Your task to perform on an android device: delete a single message in the gmail app Image 0: 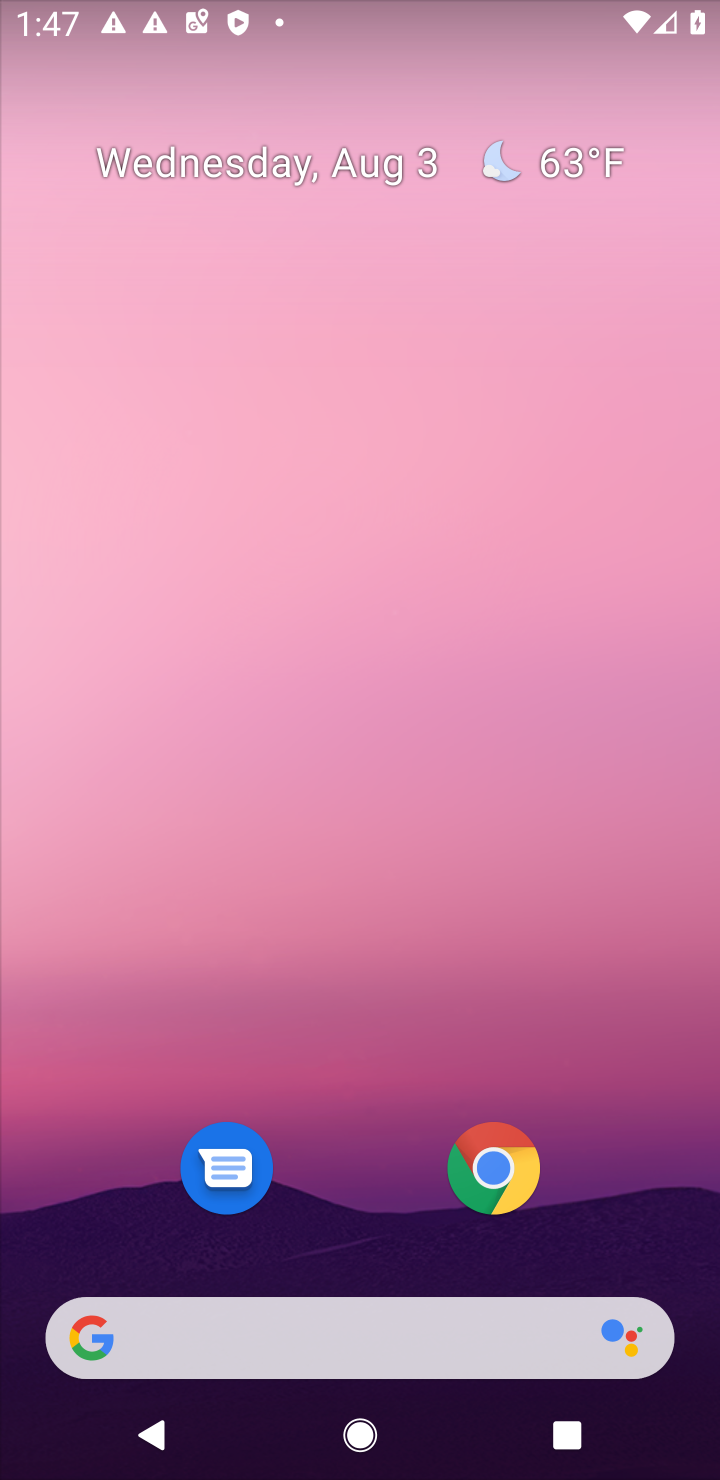
Step 0: drag from (657, 1073) to (587, 91)
Your task to perform on an android device: delete a single message in the gmail app Image 1: 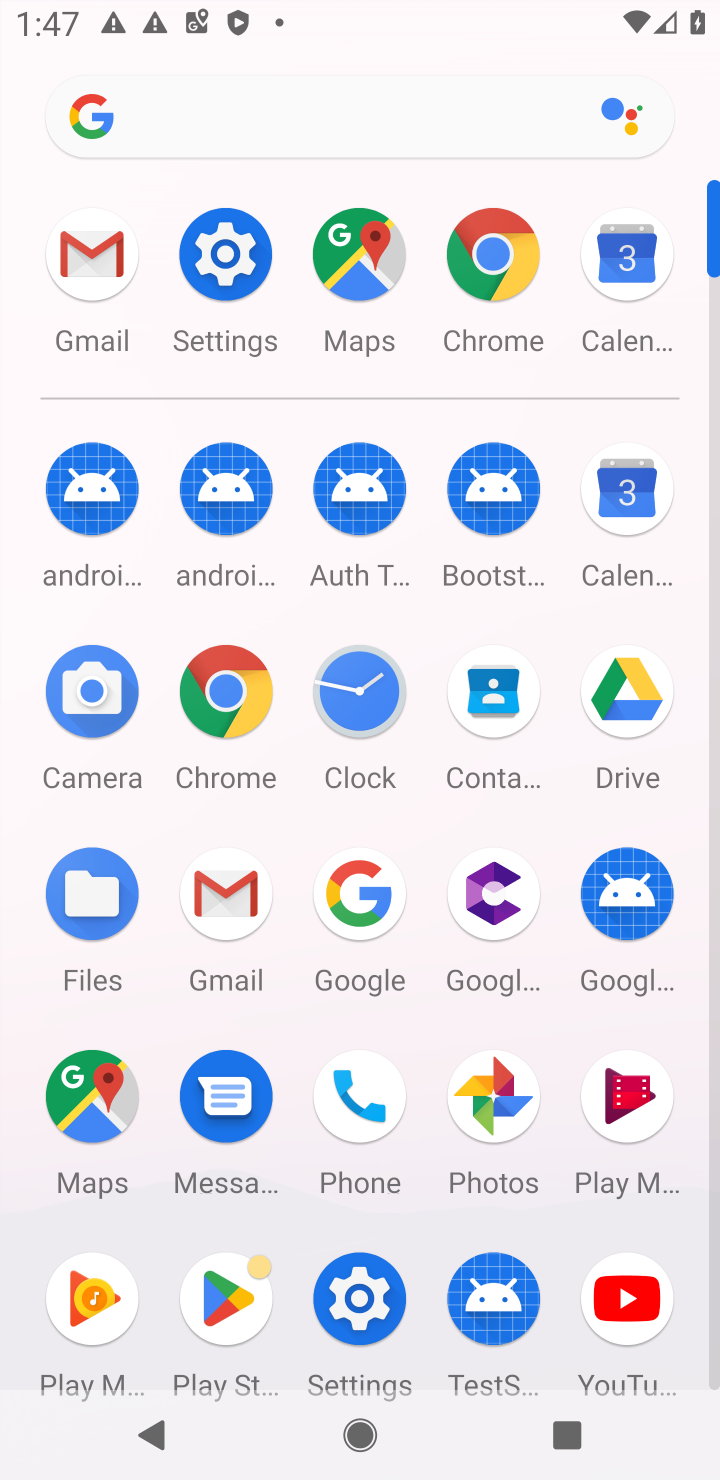
Step 1: click (219, 897)
Your task to perform on an android device: delete a single message in the gmail app Image 2: 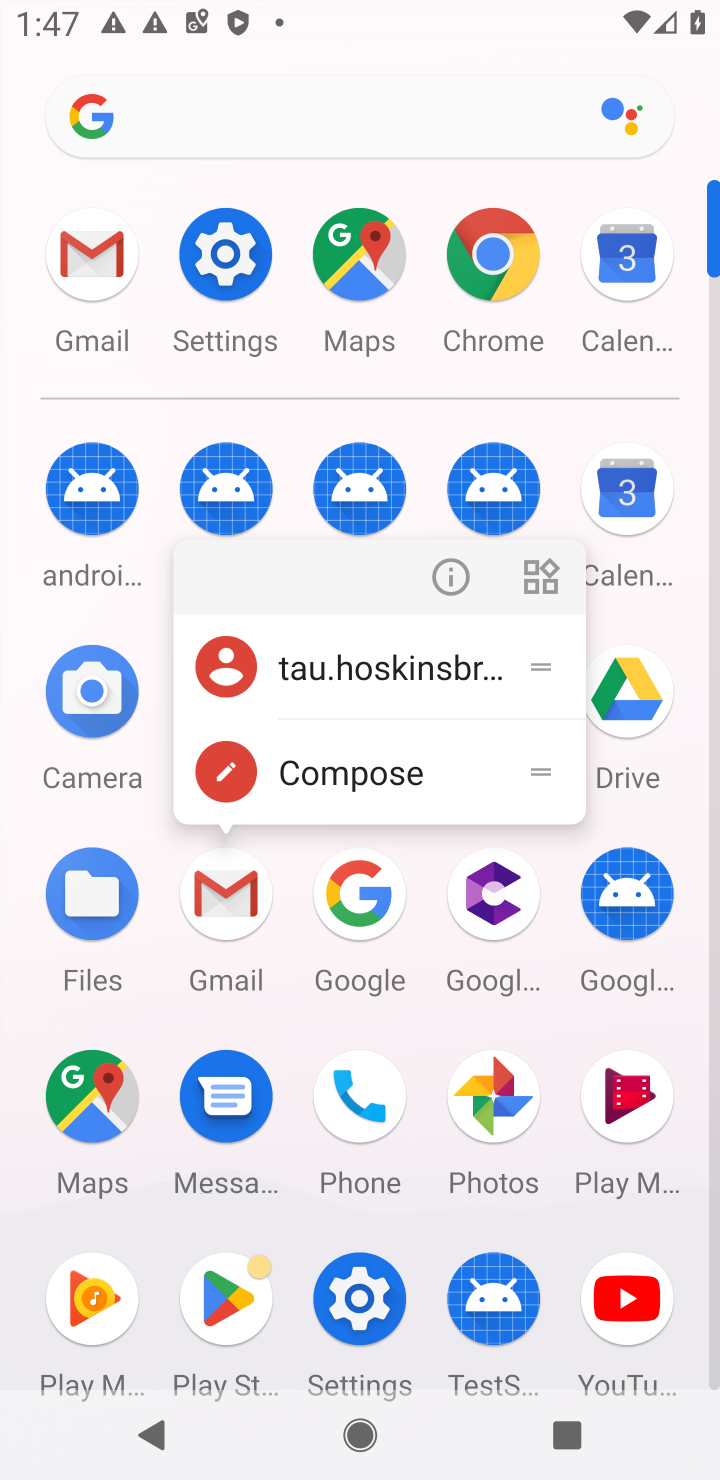
Step 2: click (223, 896)
Your task to perform on an android device: delete a single message in the gmail app Image 3: 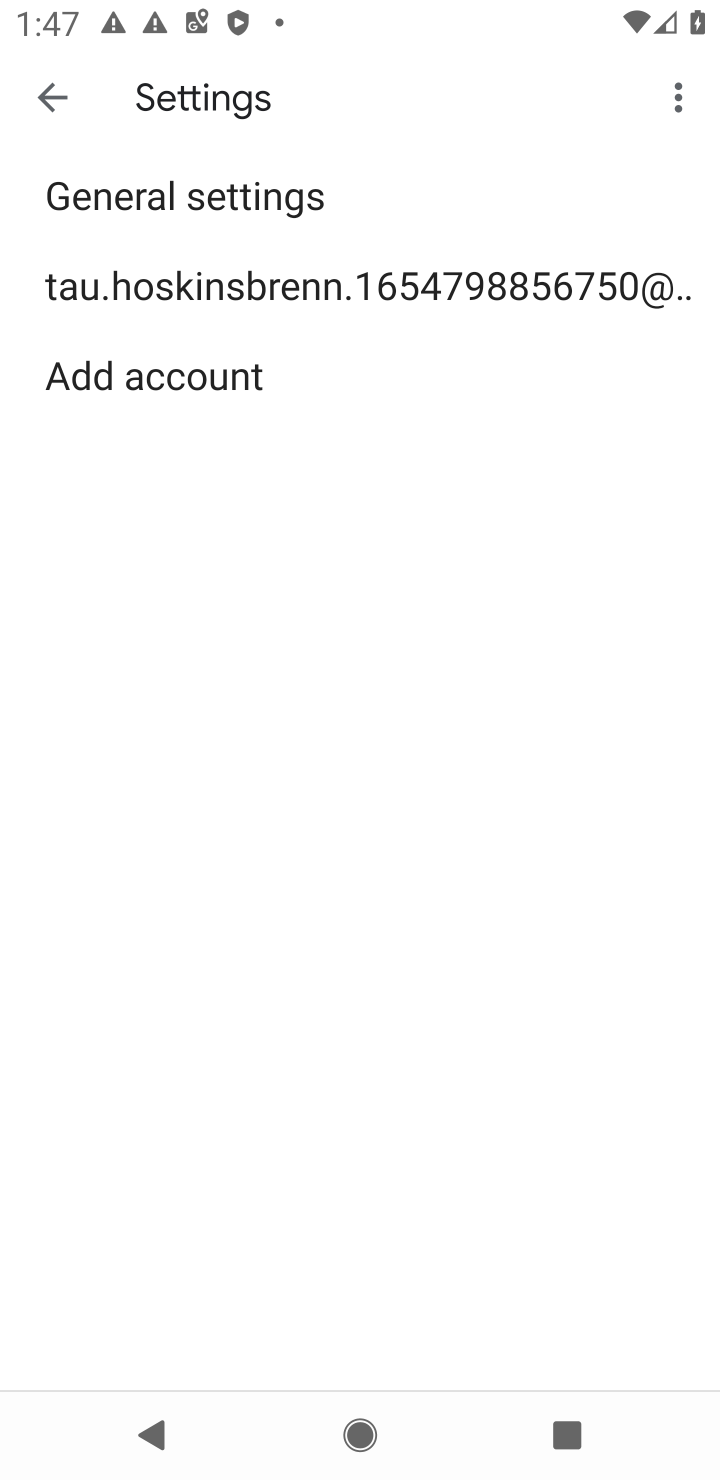
Step 3: press back button
Your task to perform on an android device: delete a single message in the gmail app Image 4: 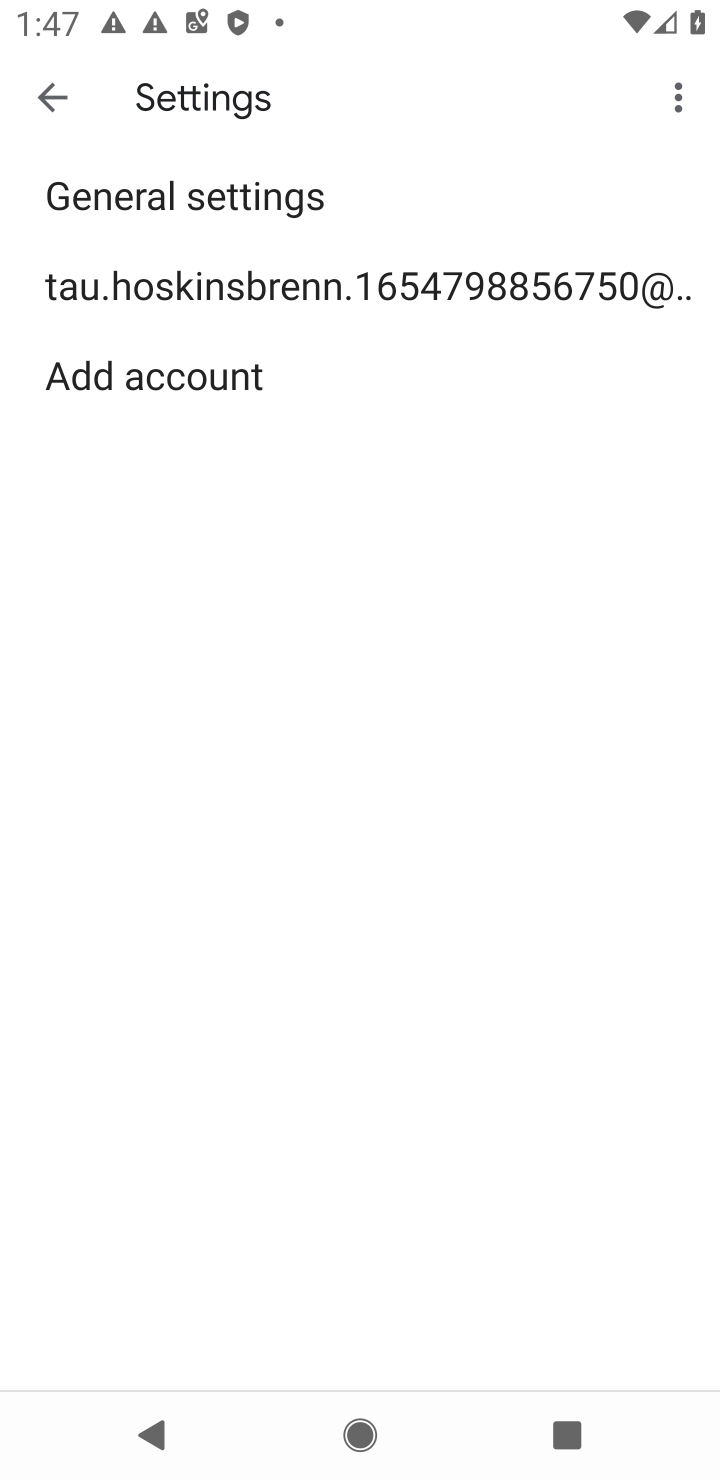
Step 4: press back button
Your task to perform on an android device: delete a single message in the gmail app Image 5: 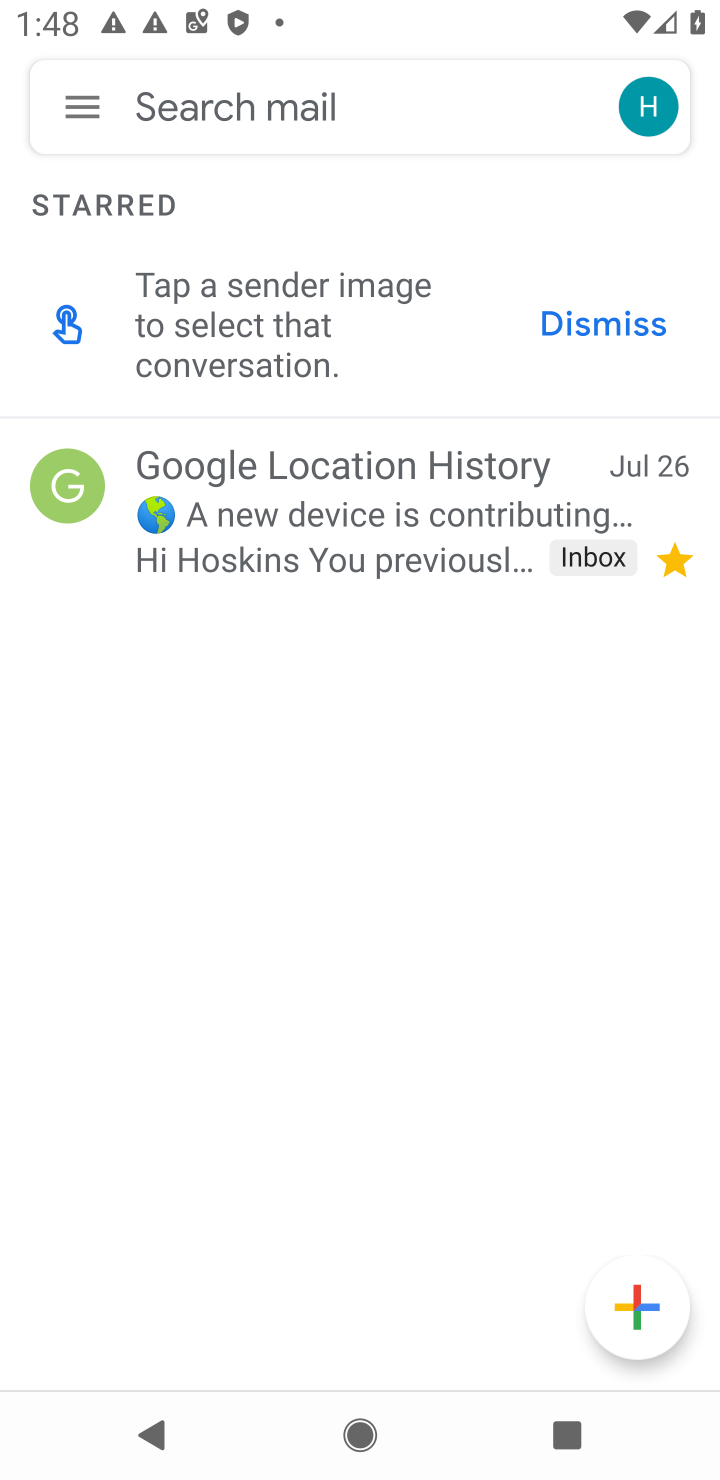
Step 5: click (414, 478)
Your task to perform on an android device: delete a single message in the gmail app Image 6: 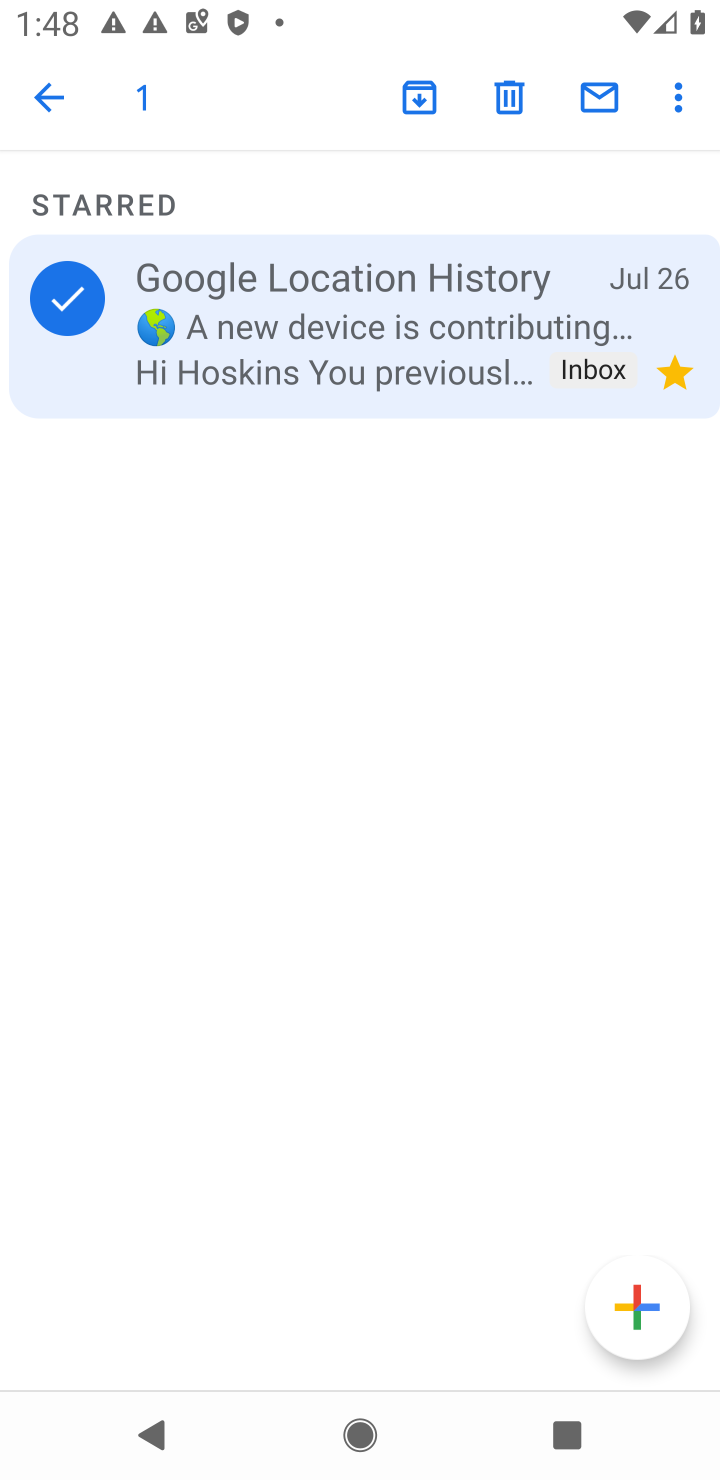
Step 6: click (507, 101)
Your task to perform on an android device: delete a single message in the gmail app Image 7: 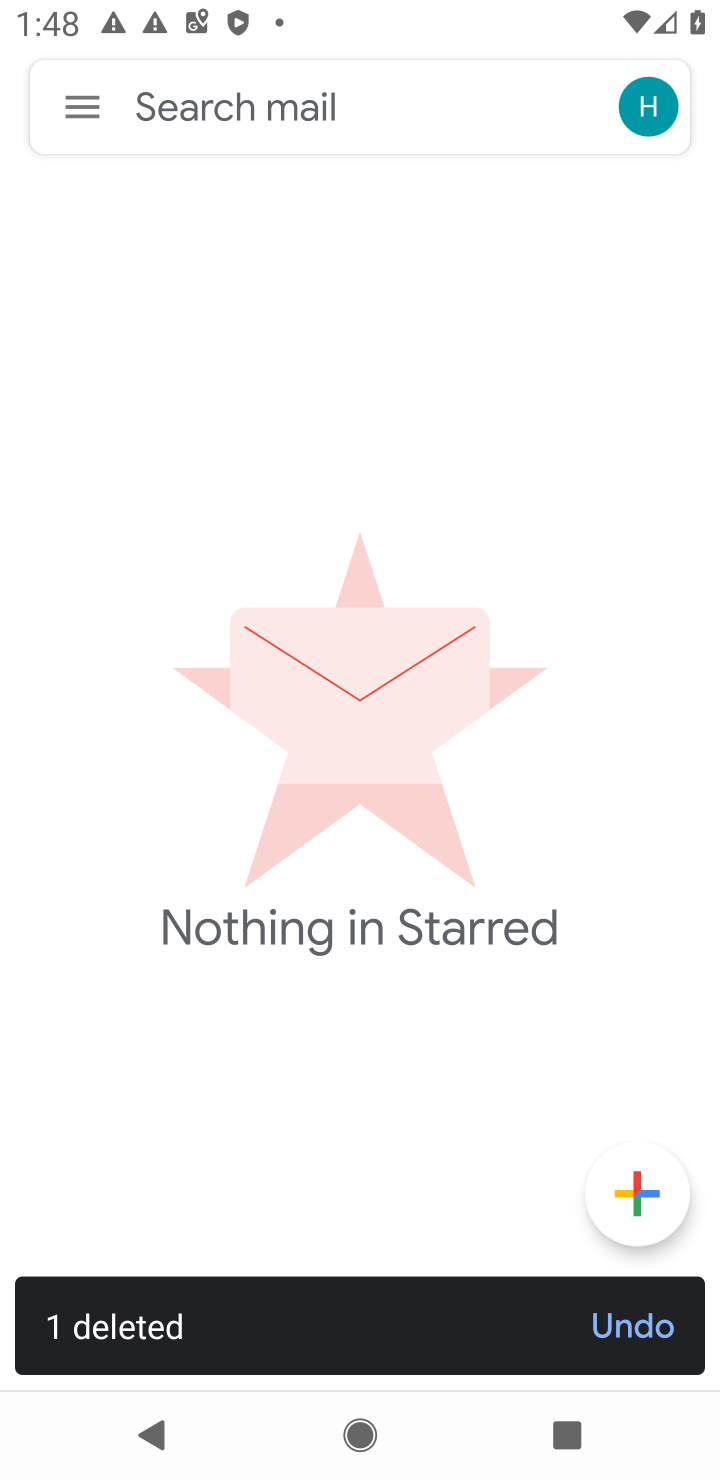
Step 7: task complete